Your task to perform on an android device: turn on airplane mode Image 0: 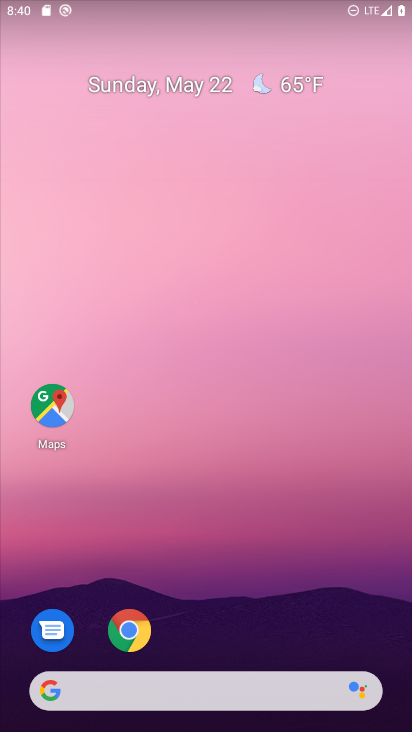
Step 0: drag from (171, 628) to (287, 214)
Your task to perform on an android device: turn on airplane mode Image 1: 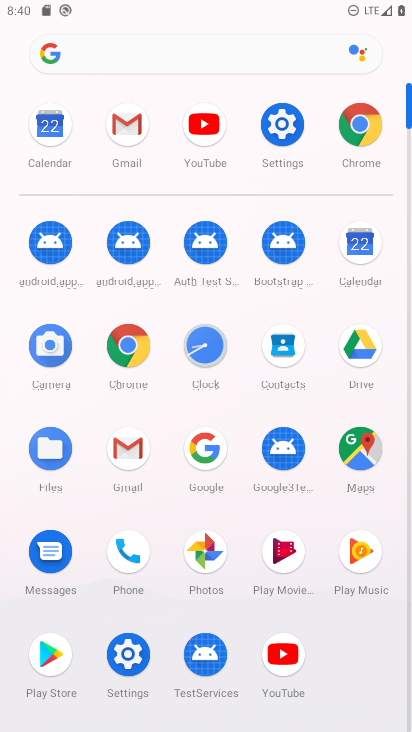
Step 1: click (272, 129)
Your task to perform on an android device: turn on airplane mode Image 2: 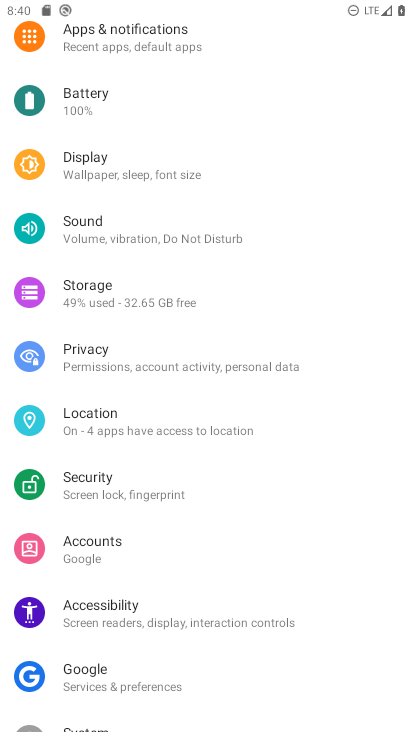
Step 2: drag from (309, 102) to (271, 597)
Your task to perform on an android device: turn on airplane mode Image 3: 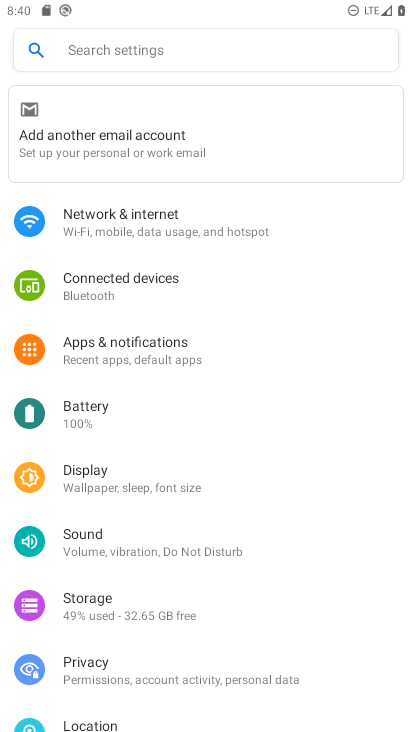
Step 3: click (162, 227)
Your task to perform on an android device: turn on airplane mode Image 4: 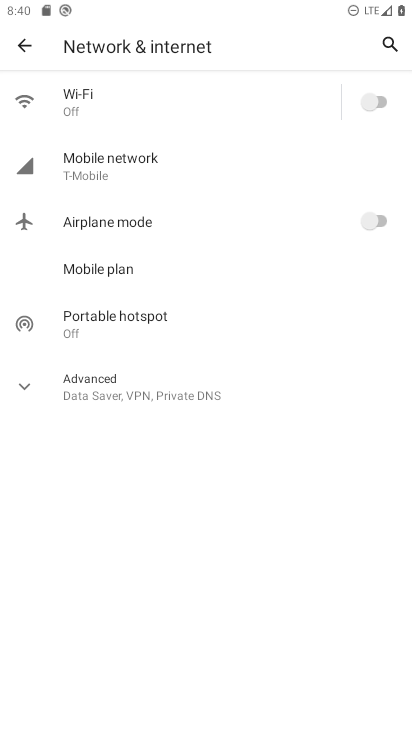
Step 4: click (383, 224)
Your task to perform on an android device: turn on airplane mode Image 5: 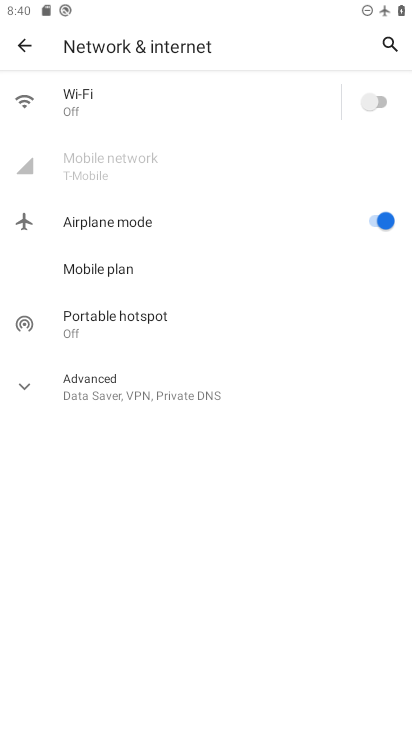
Step 5: task complete